Your task to perform on an android device: Open Google Chrome and click the shortcut for Amazon.com Image 0: 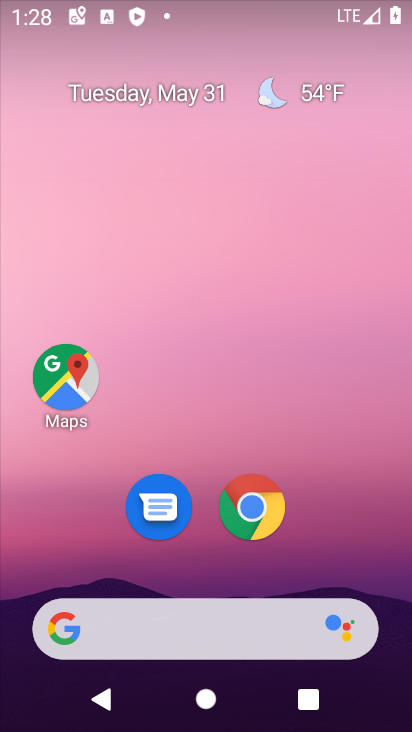
Step 0: drag from (393, 636) to (353, 53)
Your task to perform on an android device: Open Google Chrome and click the shortcut for Amazon.com Image 1: 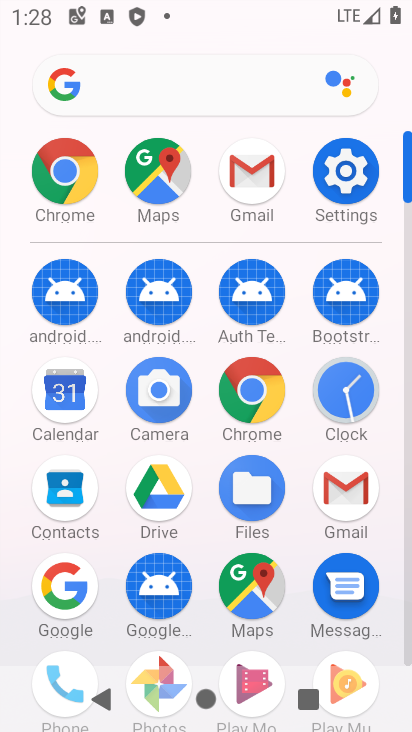
Step 1: click (257, 407)
Your task to perform on an android device: Open Google Chrome and click the shortcut for Amazon.com Image 2: 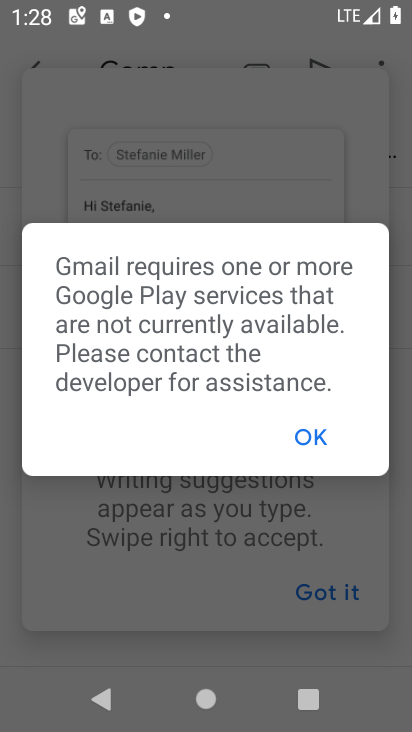
Step 2: click (298, 440)
Your task to perform on an android device: Open Google Chrome and click the shortcut for Amazon.com Image 3: 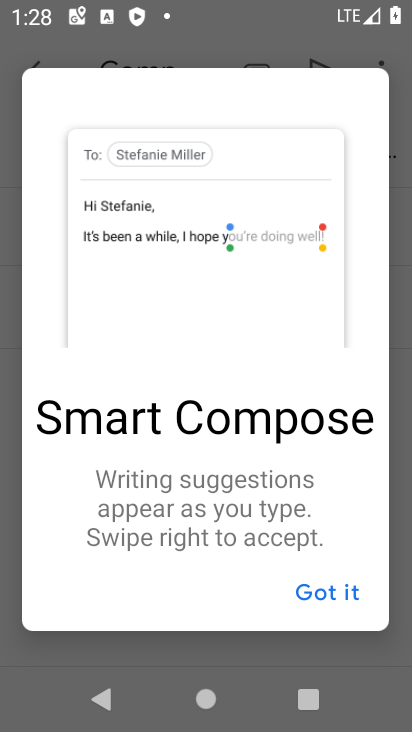
Step 3: press home button
Your task to perform on an android device: Open Google Chrome and click the shortcut for Amazon.com Image 4: 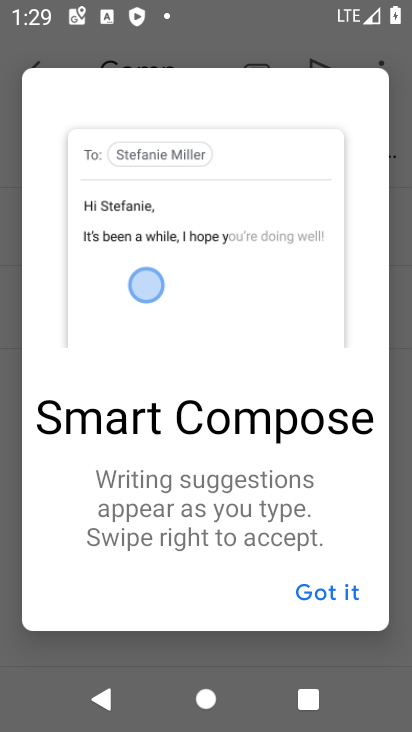
Step 4: drag from (347, 612) to (322, 95)
Your task to perform on an android device: Open Google Chrome and click the shortcut for Amazon.com Image 5: 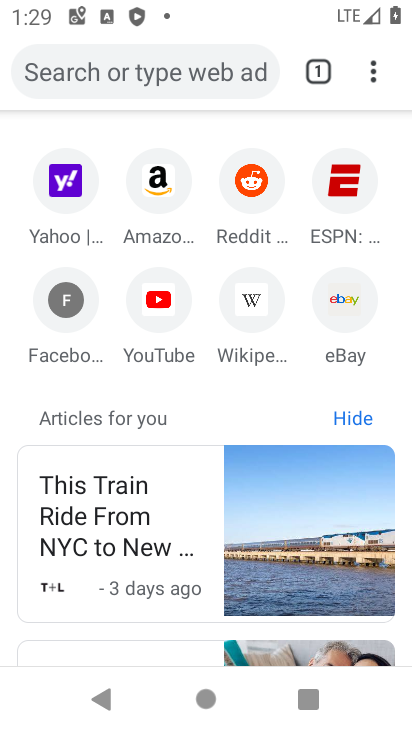
Step 5: click (175, 172)
Your task to perform on an android device: Open Google Chrome and click the shortcut for Amazon.com Image 6: 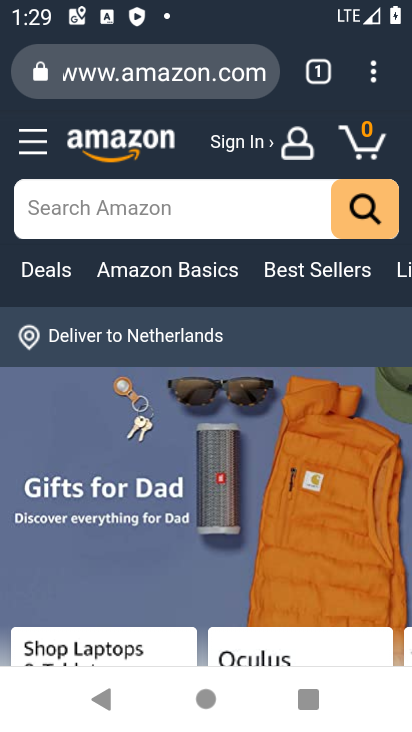
Step 6: task complete